Your task to perform on an android device: Open CNN.com Image 0: 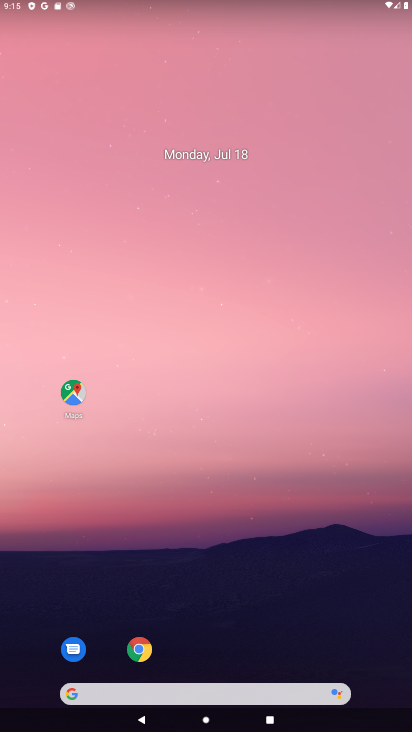
Step 0: drag from (287, 696) to (224, 9)
Your task to perform on an android device: Open CNN.com Image 1: 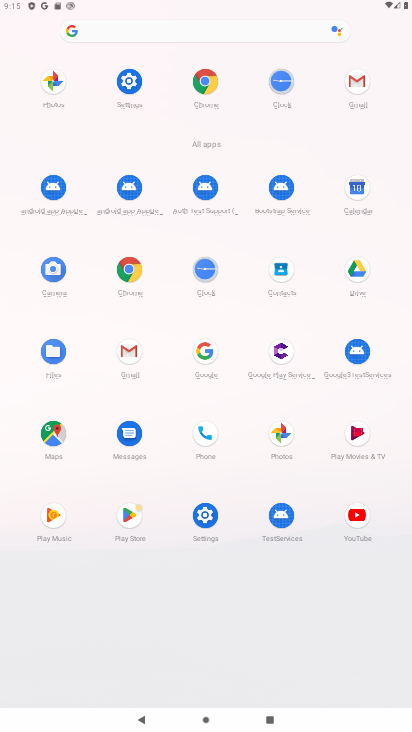
Step 1: click (120, 277)
Your task to perform on an android device: Open CNN.com Image 2: 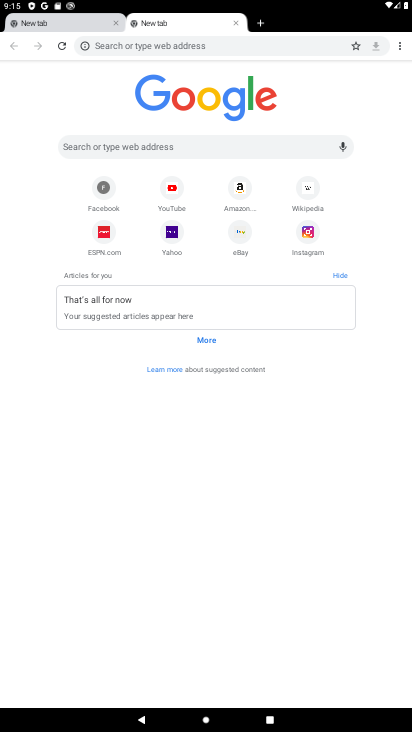
Step 2: click (203, 51)
Your task to perform on an android device: Open CNN.com Image 3: 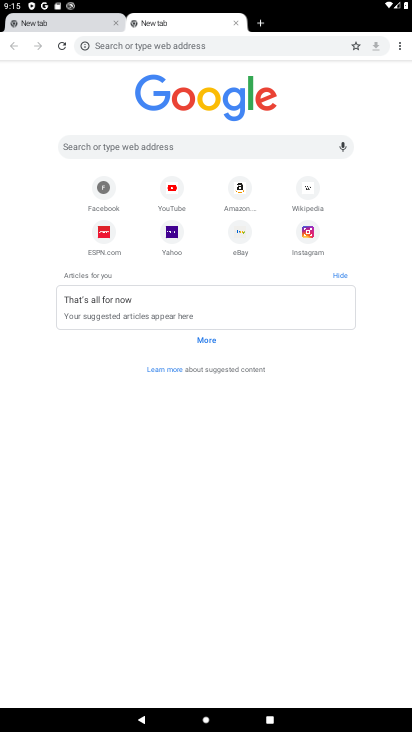
Step 3: click (203, 51)
Your task to perform on an android device: Open CNN.com Image 4: 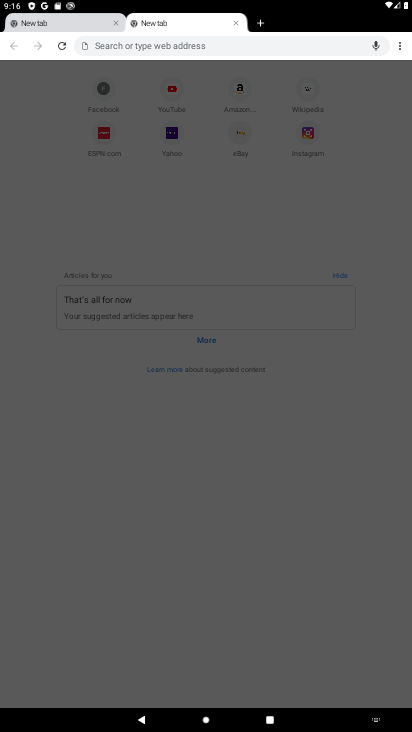
Step 4: type "cnn"
Your task to perform on an android device: Open CNN.com Image 5: 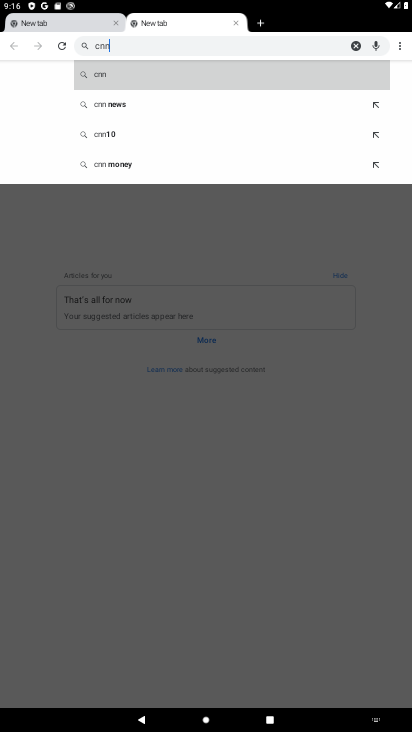
Step 5: click (214, 80)
Your task to perform on an android device: Open CNN.com Image 6: 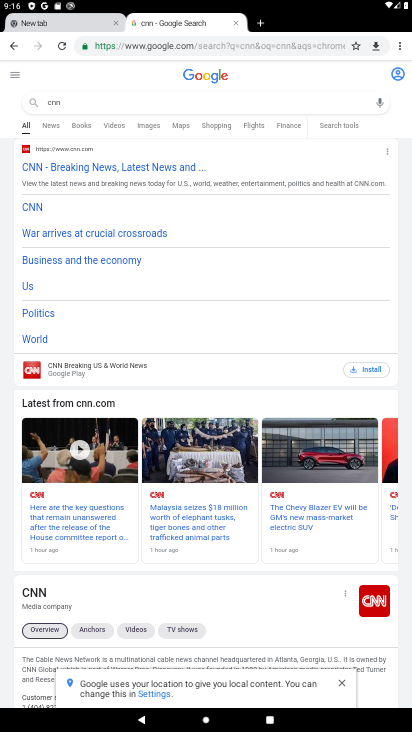
Step 6: task complete